Your task to perform on an android device: check the backup settings in the google photos Image 0: 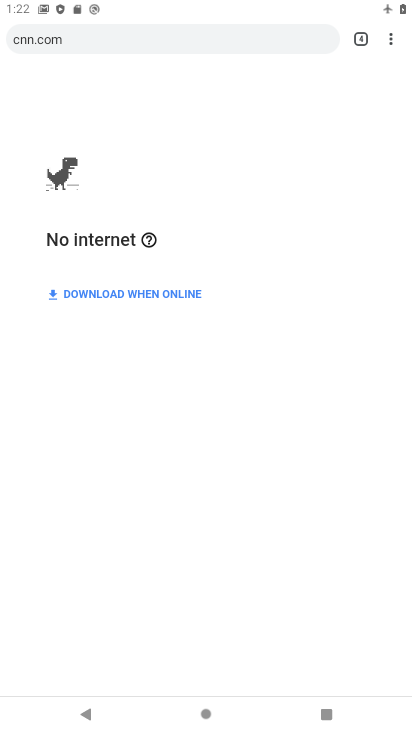
Step 0: press home button
Your task to perform on an android device: check the backup settings in the google photos Image 1: 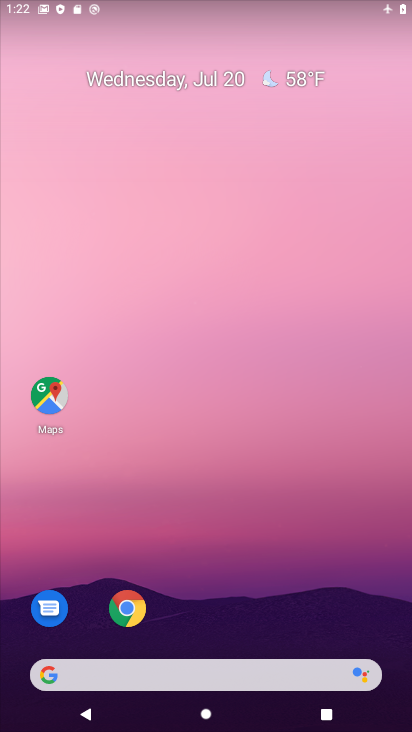
Step 1: drag from (241, 703) to (225, 112)
Your task to perform on an android device: check the backup settings in the google photos Image 2: 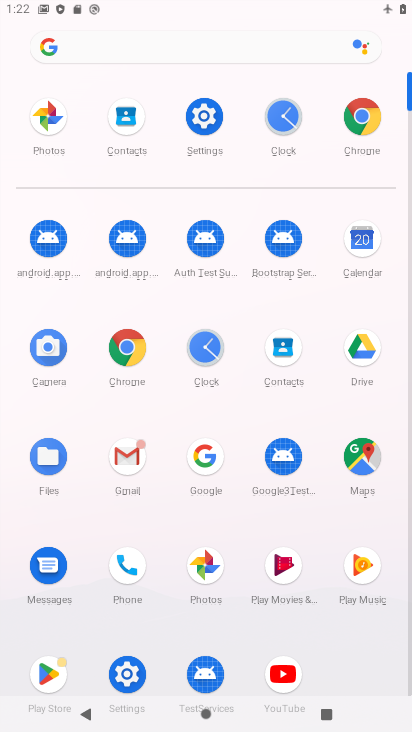
Step 2: click (208, 563)
Your task to perform on an android device: check the backup settings in the google photos Image 3: 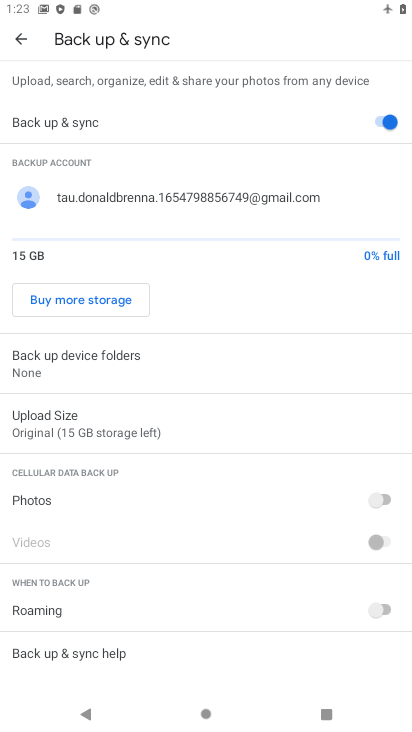
Step 3: task complete